Your task to perform on an android device: Go to Android settings Image 0: 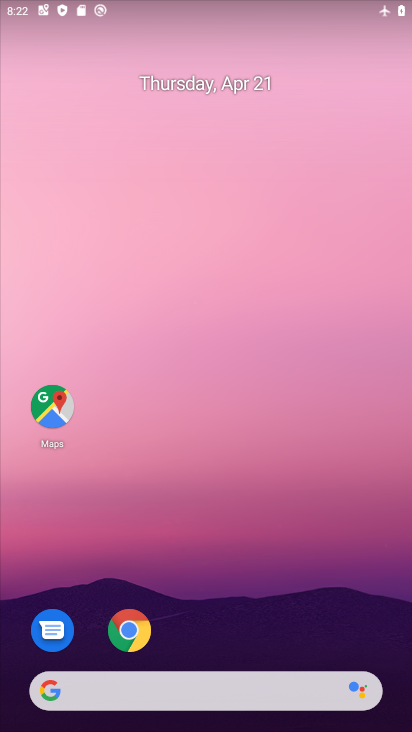
Step 0: drag from (224, 623) to (330, 52)
Your task to perform on an android device: Go to Android settings Image 1: 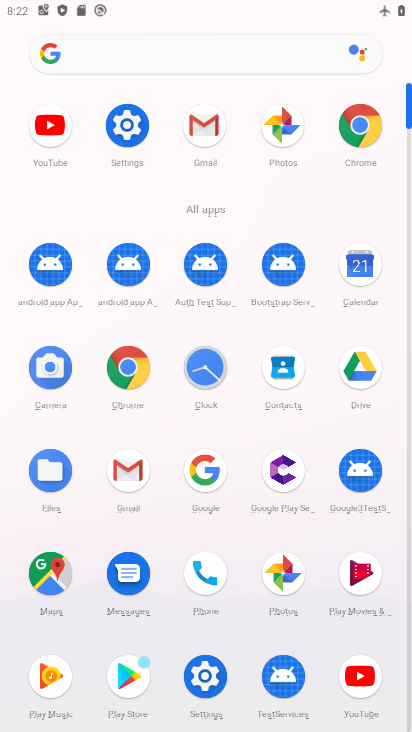
Step 1: click (139, 141)
Your task to perform on an android device: Go to Android settings Image 2: 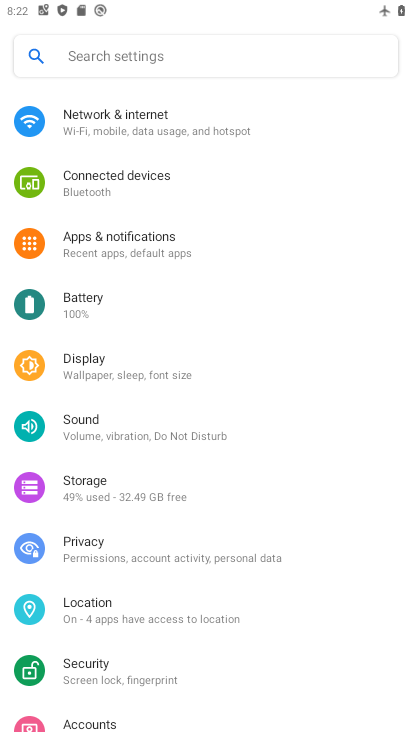
Step 2: drag from (152, 627) to (236, 81)
Your task to perform on an android device: Go to Android settings Image 3: 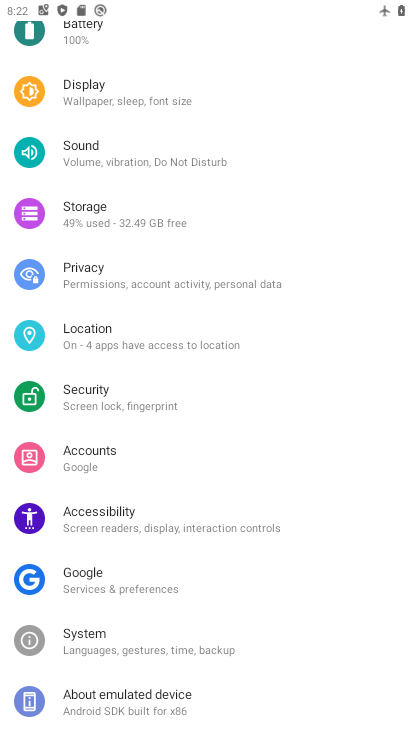
Step 3: click (116, 696)
Your task to perform on an android device: Go to Android settings Image 4: 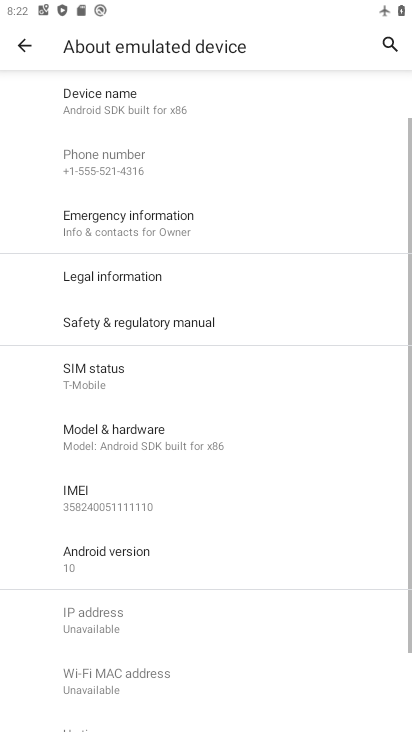
Step 4: click (119, 560)
Your task to perform on an android device: Go to Android settings Image 5: 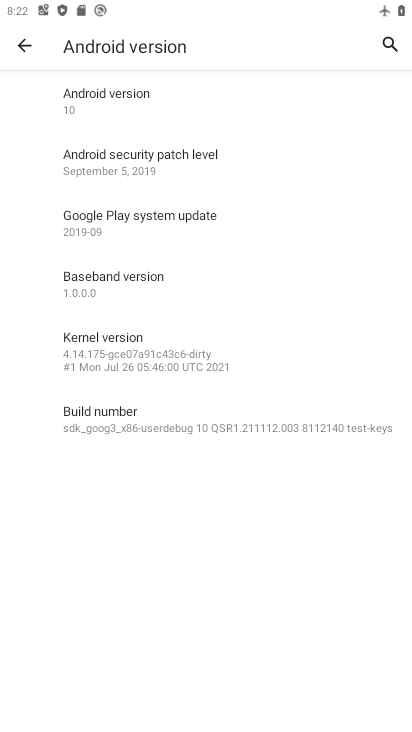
Step 5: task complete